Your task to perform on an android device: Go to notification settings Image 0: 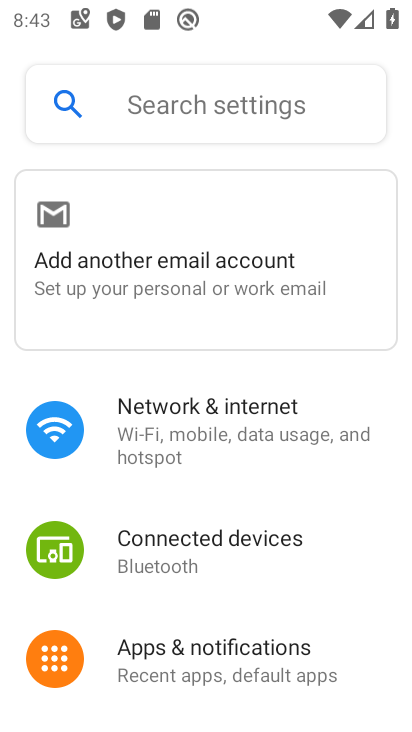
Step 0: click (296, 642)
Your task to perform on an android device: Go to notification settings Image 1: 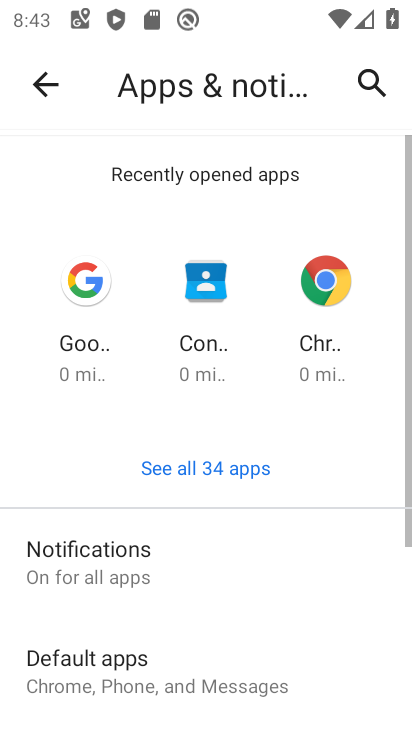
Step 1: task complete